Your task to perform on an android device: Open battery settings Image 0: 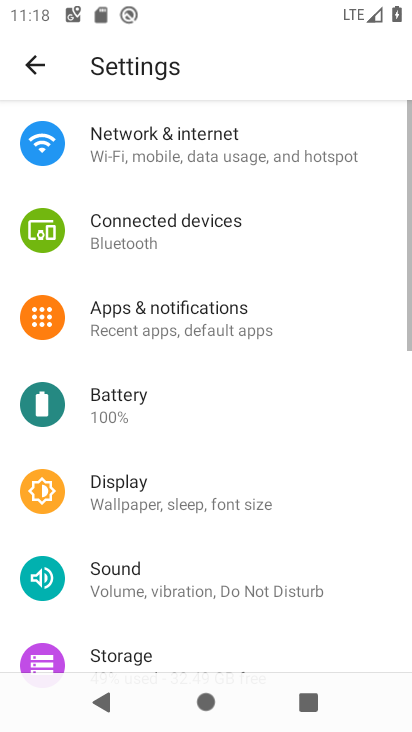
Step 0: click (108, 404)
Your task to perform on an android device: Open battery settings Image 1: 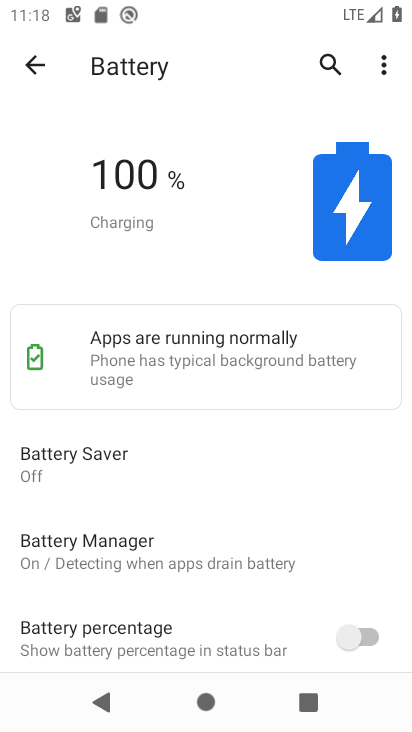
Step 1: task complete